Your task to perform on an android device: Go to Wikipedia Image 0: 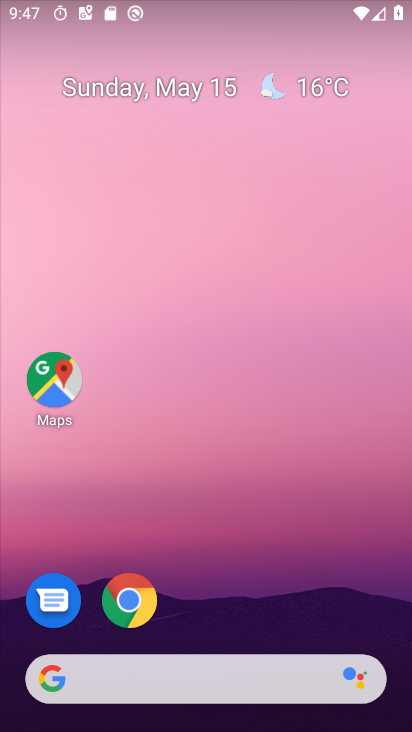
Step 0: click (130, 596)
Your task to perform on an android device: Go to Wikipedia Image 1: 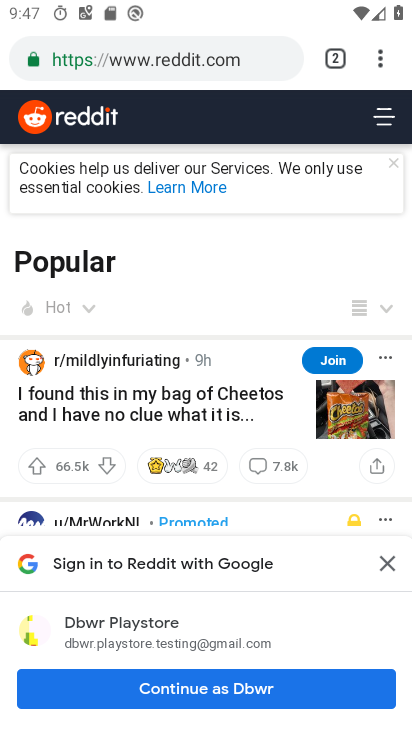
Step 1: click (341, 53)
Your task to perform on an android device: Go to Wikipedia Image 2: 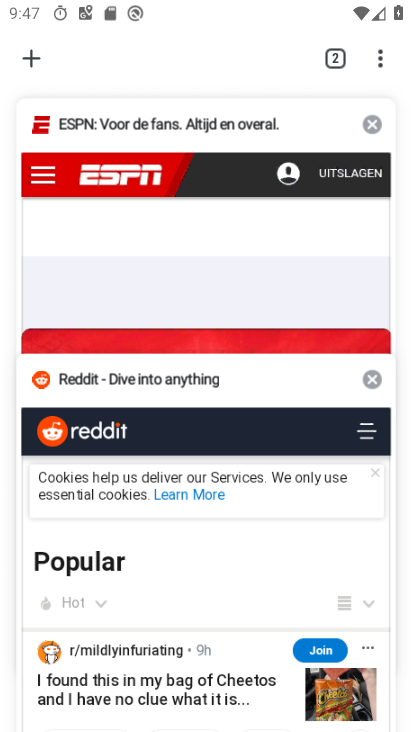
Step 2: click (27, 55)
Your task to perform on an android device: Go to Wikipedia Image 3: 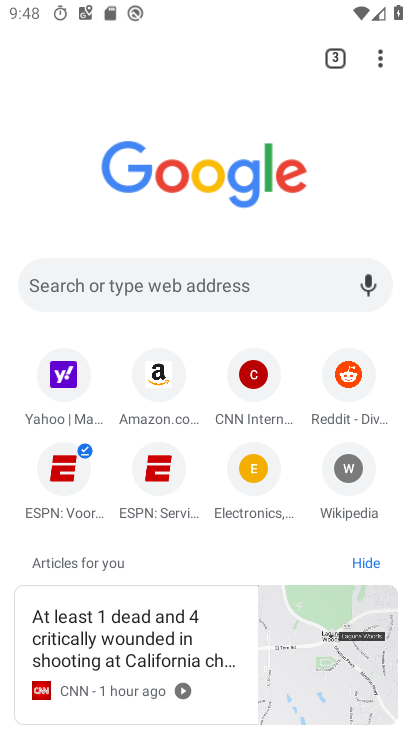
Step 3: click (355, 478)
Your task to perform on an android device: Go to Wikipedia Image 4: 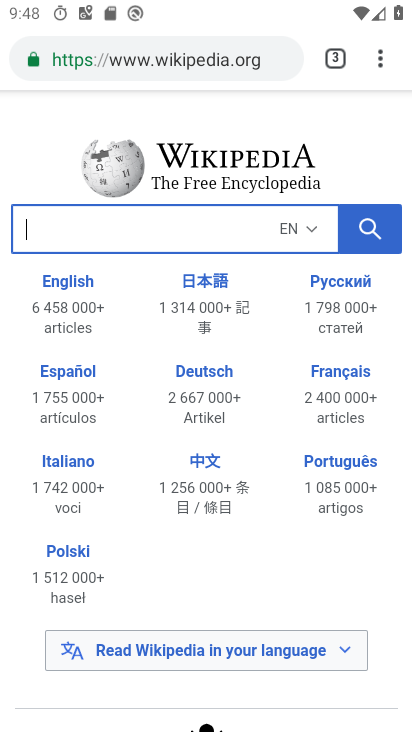
Step 4: task complete